Your task to perform on an android device: Toggle the flashlight Image 0: 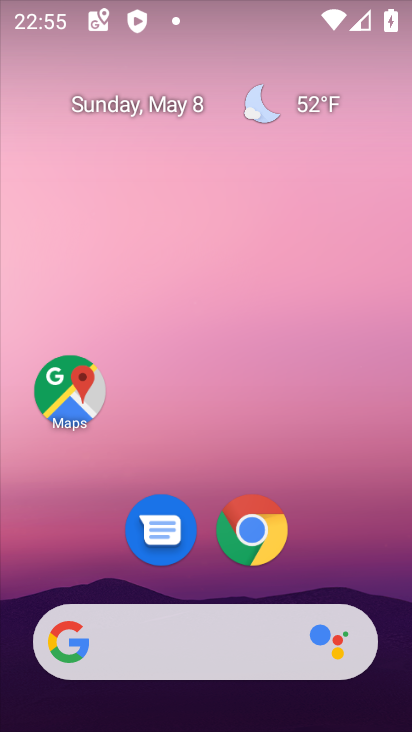
Step 0: drag from (387, 571) to (332, 165)
Your task to perform on an android device: Toggle the flashlight Image 1: 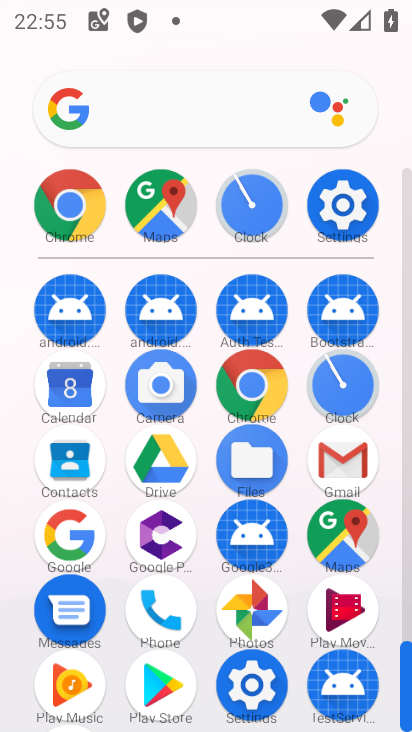
Step 1: click (258, 686)
Your task to perform on an android device: Toggle the flashlight Image 2: 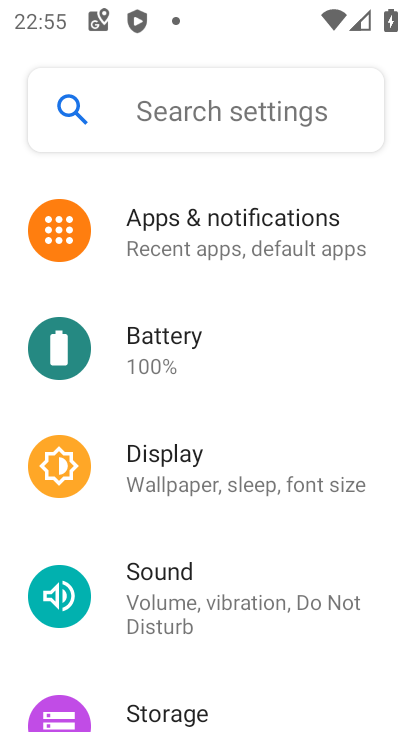
Step 2: click (211, 122)
Your task to perform on an android device: Toggle the flashlight Image 3: 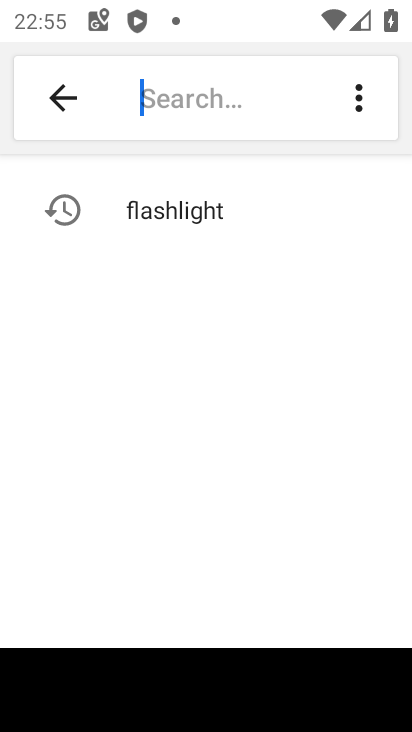
Step 3: click (207, 210)
Your task to perform on an android device: Toggle the flashlight Image 4: 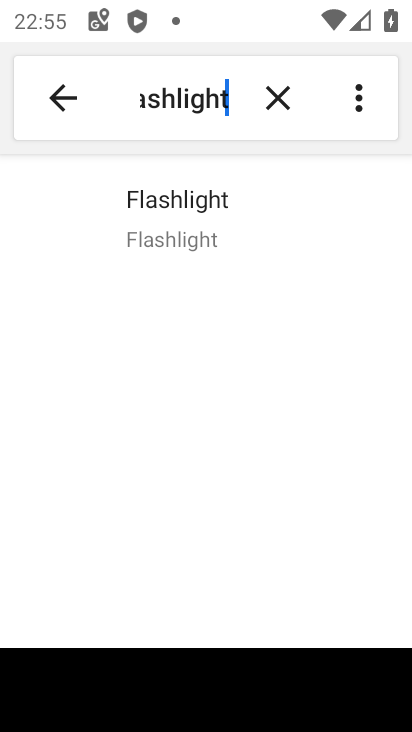
Step 4: task complete